Your task to perform on an android device: set the timer Image 0: 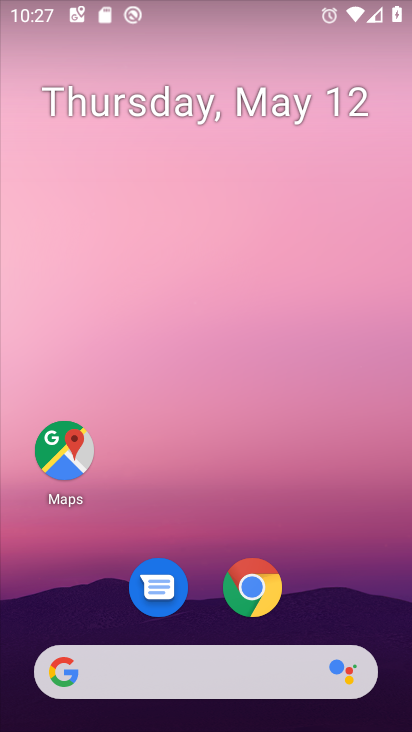
Step 0: drag from (372, 591) to (200, 3)
Your task to perform on an android device: set the timer Image 1: 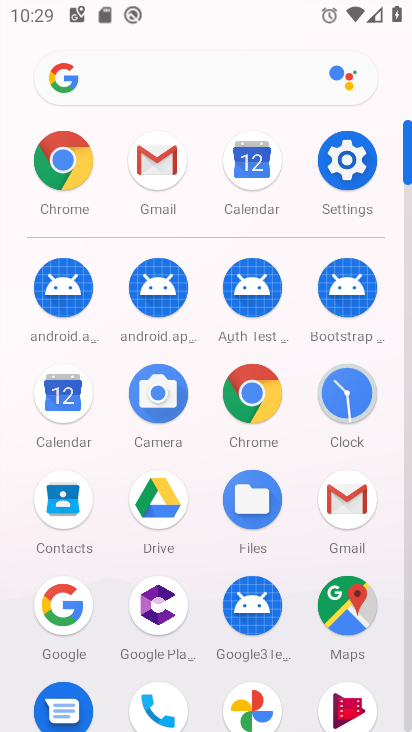
Step 1: click (325, 395)
Your task to perform on an android device: set the timer Image 2: 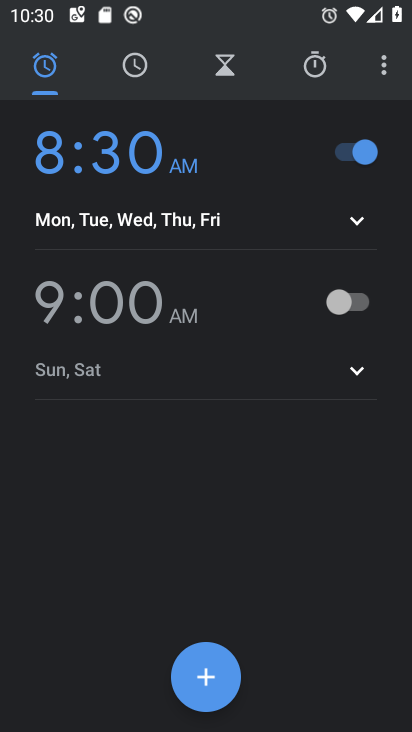
Step 2: click (379, 44)
Your task to perform on an android device: set the timer Image 3: 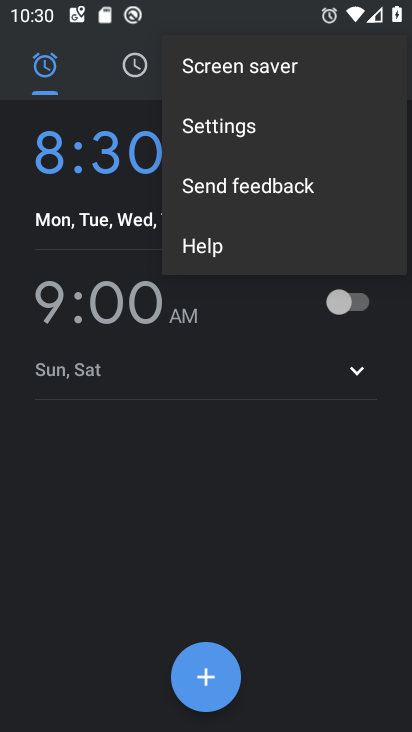
Step 3: click (233, 144)
Your task to perform on an android device: set the timer Image 4: 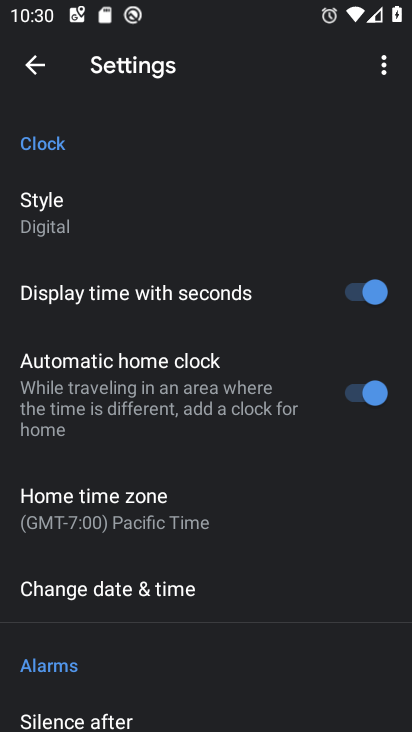
Step 4: click (148, 534)
Your task to perform on an android device: set the timer Image 5: 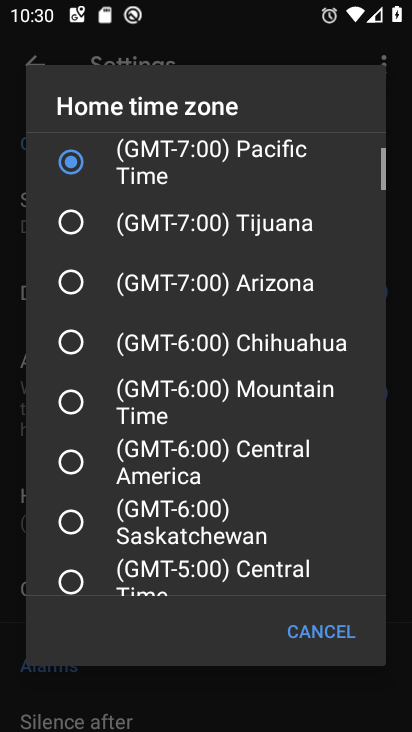
Step 5: click (225, 351)
Your task to perform on an android device: set the timer Image 6: 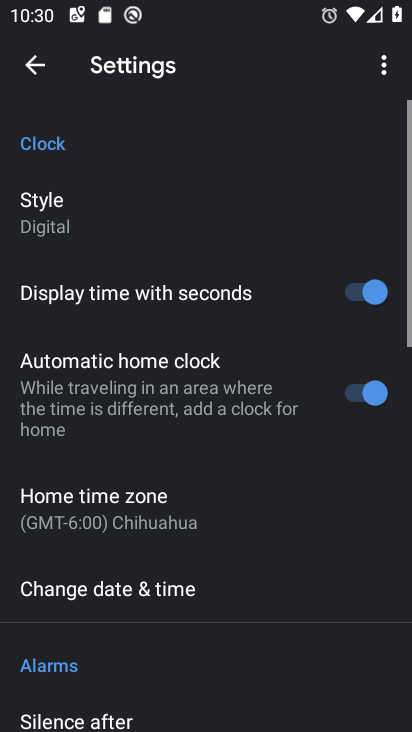
Step 6: task complete